Your task to perform on an android device: turn on notifications settings in the gmail app Image 0: 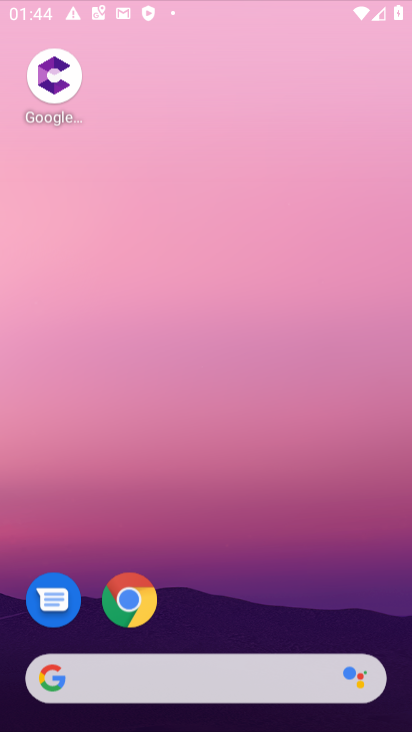
Step 0: press home button
Your task to perform on an android device: turn on notifications settings in the gmail app Image 1: 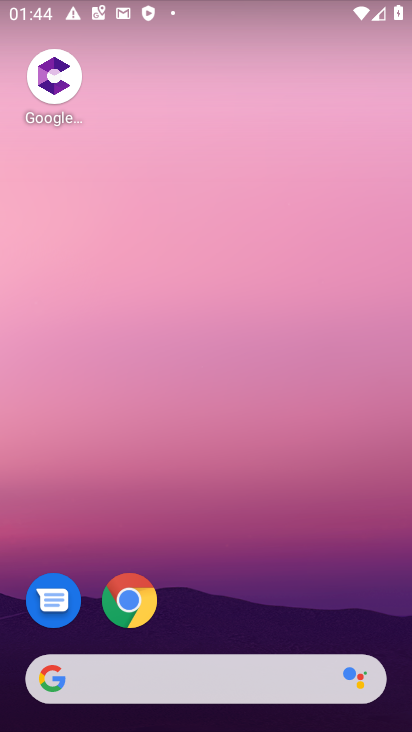
Step 1: drag from (244, 605) to (233, 115)
Your task to perform on an android device: turn on notifications settings in the gmail app Image 2: 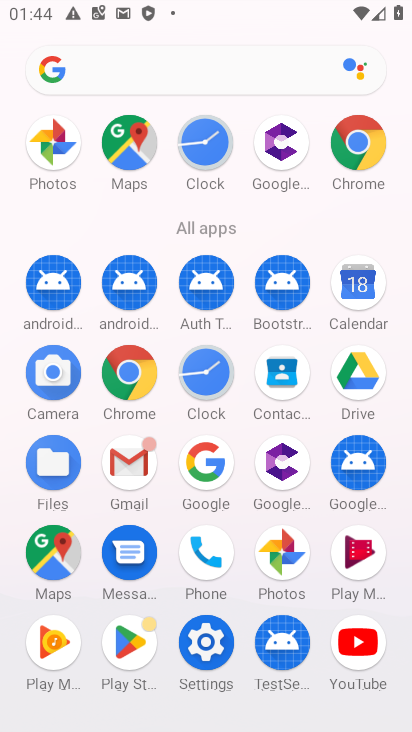
Step 2: click (117, 461)
Your task to perform on an android device: turn on notifications settings in the gmail app Image 3: 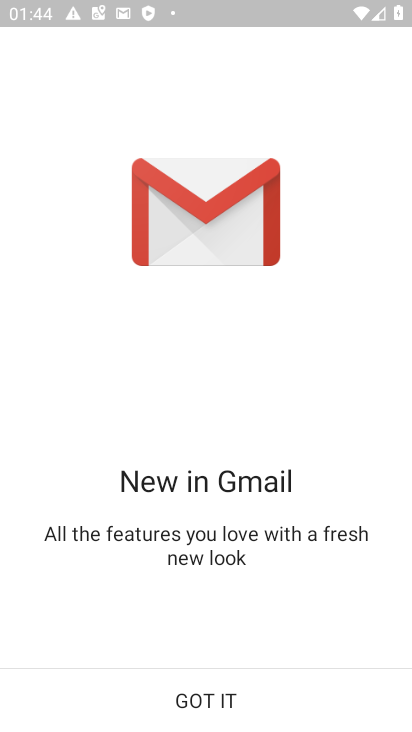
Step 3: click (199, 695)
Your task to perform on an android device: turn on notifications settings in the gmail app Image 4: 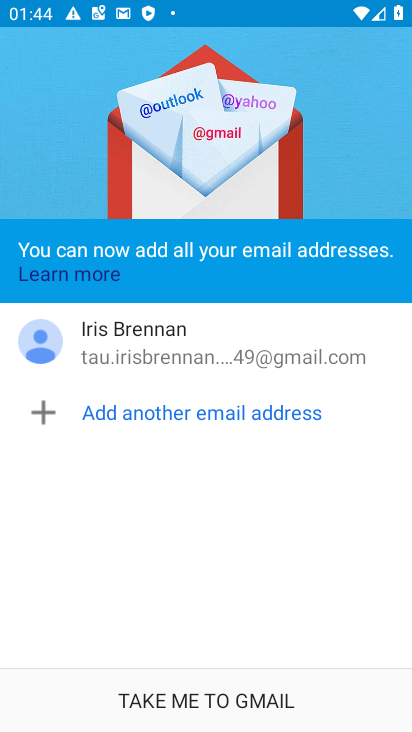
Step 4: click (200, 700)
Your task to perform on an android device: turn on notifications settings in the gmail app Image 5: 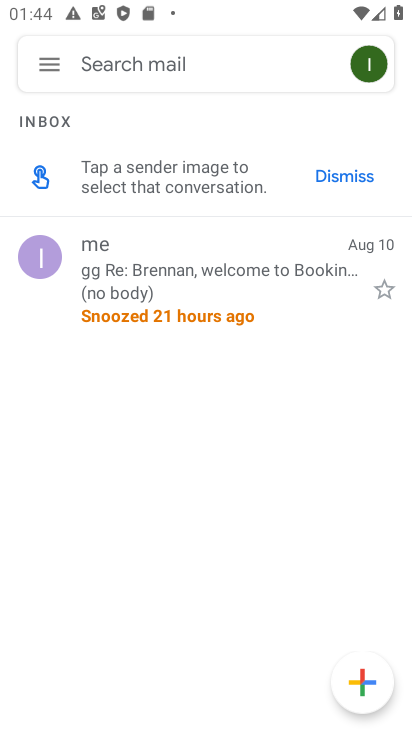
Step 5: click (42, 62)
Your task to perform on an android device: turn on notifications settings in the gmail app Image 6: 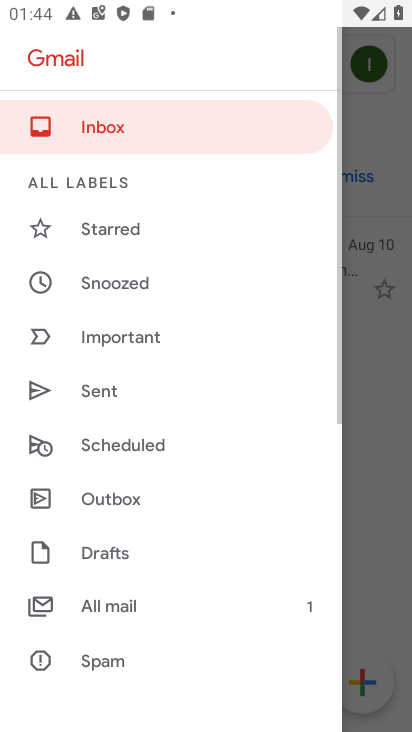
Step 6: drag from (146, 640) to (169, 225)
Your task to perform on an android device: turn on notifications settings in the gmail app Image 7: 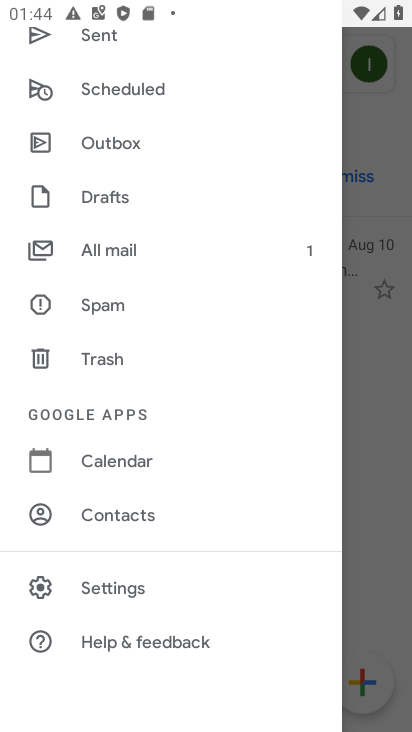
Step 7: click (124, 592)
Your task to perform on an android device: turn on notifications settings in the gmail app Image 8: 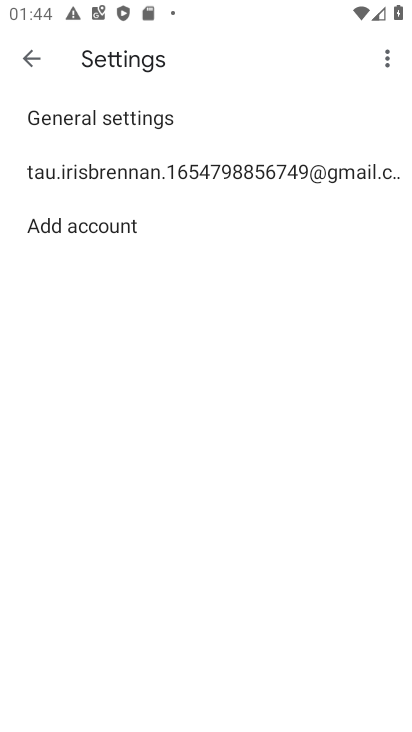
Step 8: click (91, 174)
Your task to perform on an android device: turn on notifications settings in the gmail app Image 9: 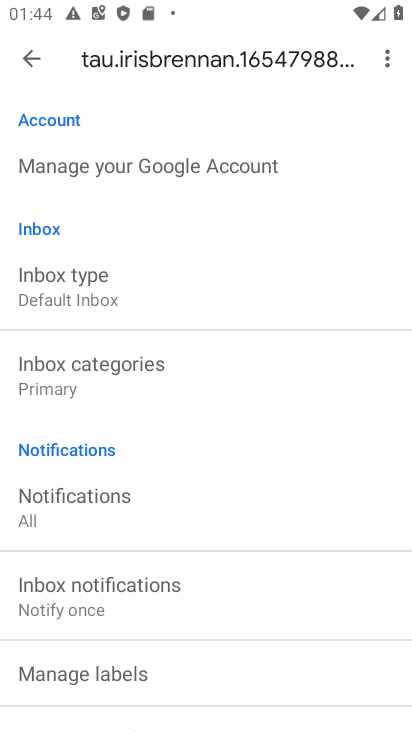
Step 9: drag from (140, 462) to (151, 154)
Your task to perform on an android device: turn on notifications settings in the gmail app Image 10: 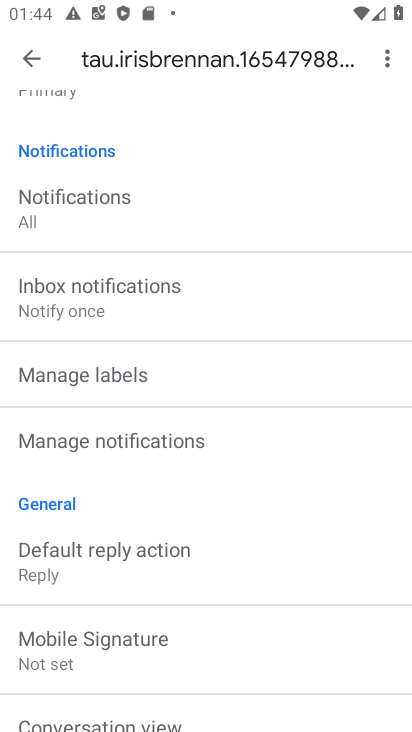
Step 10: click (96, 442)
Your task to perform on an android device: turn on notifications settings in the gmail app Image 11: 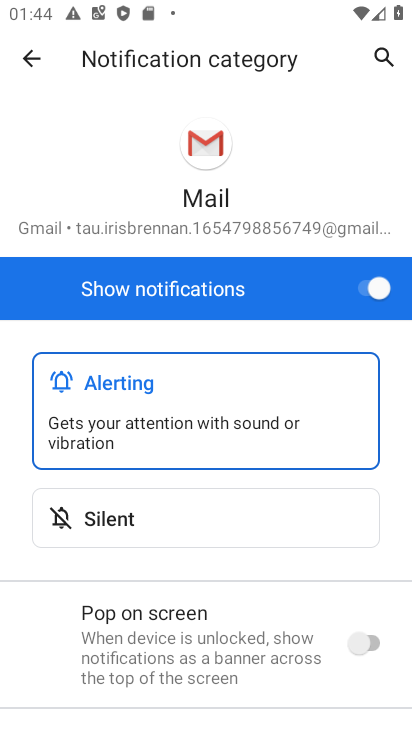
Step 11: task complete